Your task to perform on an android device: Go to Google maps Image 0: 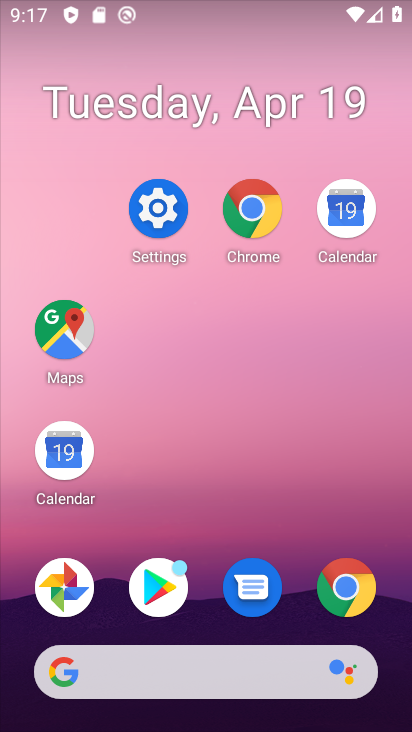
Step 0: drag from (214, 703) to (130, 200)
Your task to perform on an android device: Go to Google maps Image 1: 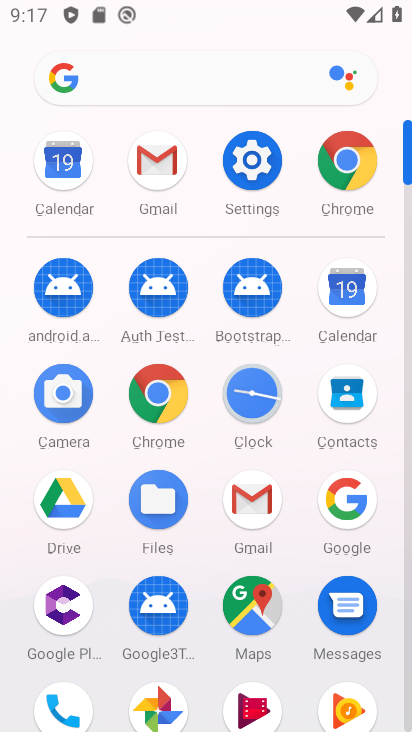
Step 1: click (241, 612)
Your task to perform on an android device: Go to Google maps Image 2: 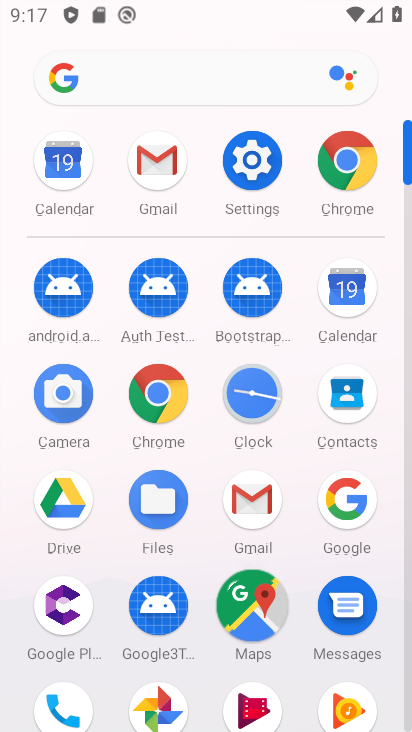
Step 2: click (253, 607)
Your task to perform on an android device: Go to Google maps Image 3: 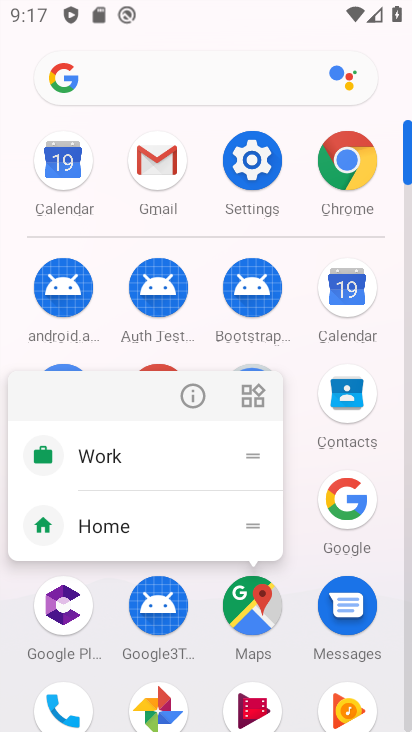
Step 3: click (237, 616)
Your task to perform on an android device: Go to Google maps Image 4: 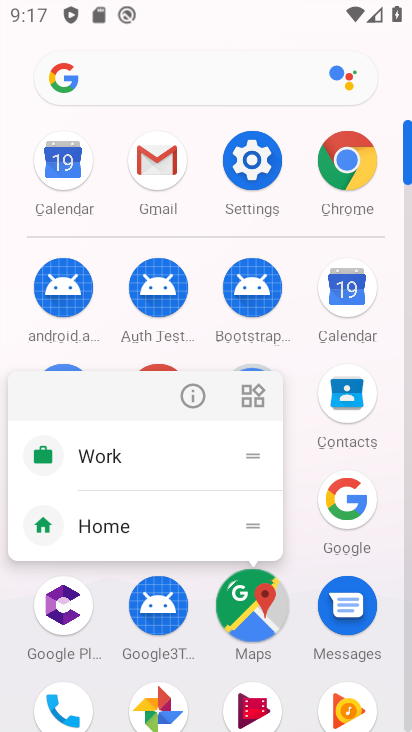
Step 4: click (237, 616)
Your task to perform on an android device: Go to Google maps Image 5: 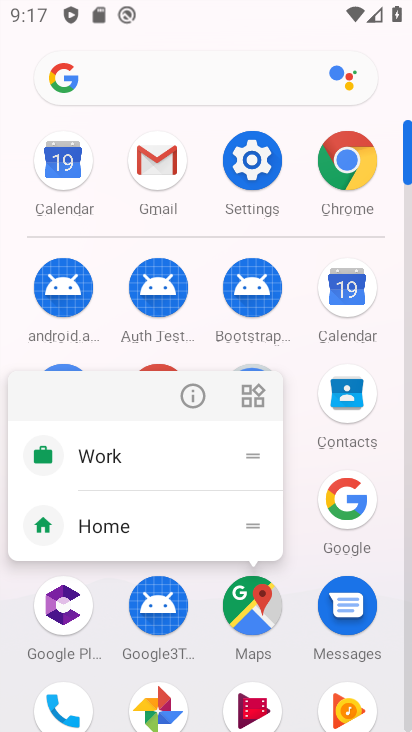
Step 5: click (237, 616)
Your task to perform on an android device: Go to Google maps Image 6: 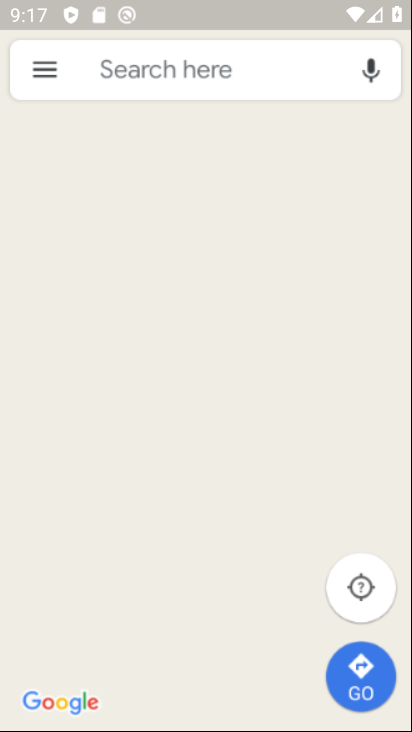
Step 6: click (237, 616)
Your task to perform on an android device: Go to Google maps Image 7: 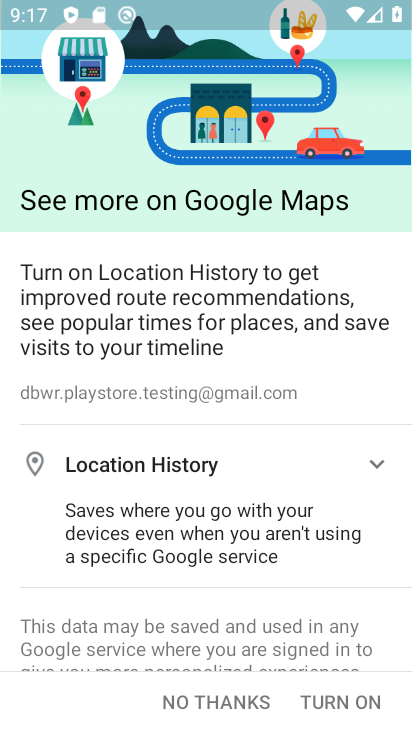
Step 7: click (203, 709)
Your task to perform on an android device: Go to Google maps Image 8: 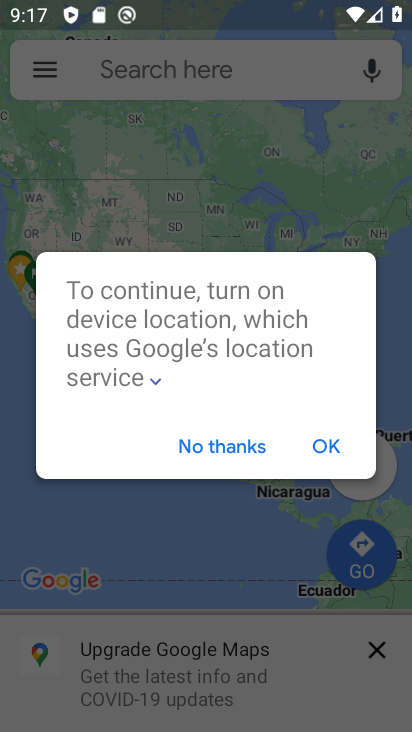
Step 8: click (316, 443)
Your task to perform on an android device: Go to Google maps Image 9: 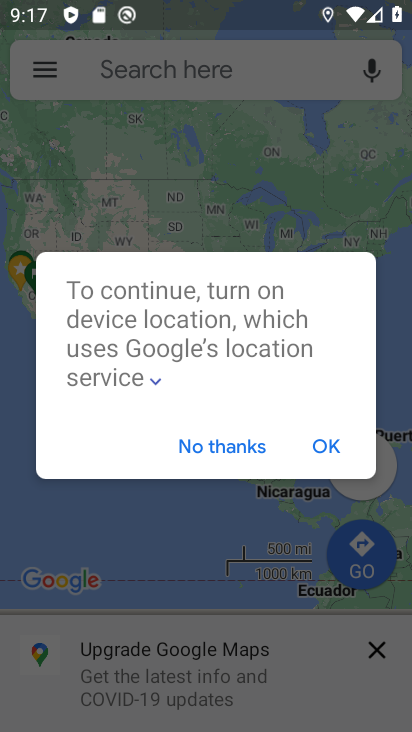
Step 9: click (207, 443)
Your task to perform on an android device: Go to Google maps Image 10: 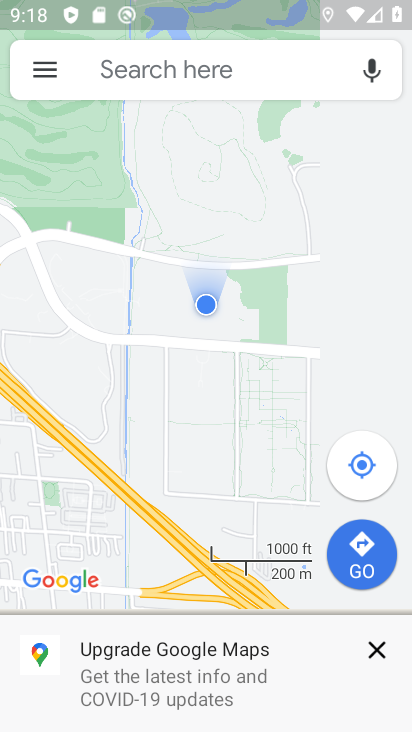
Step 10: task complete